Your task to perform on an android device: toggle javascript in the chrome app Image 0: 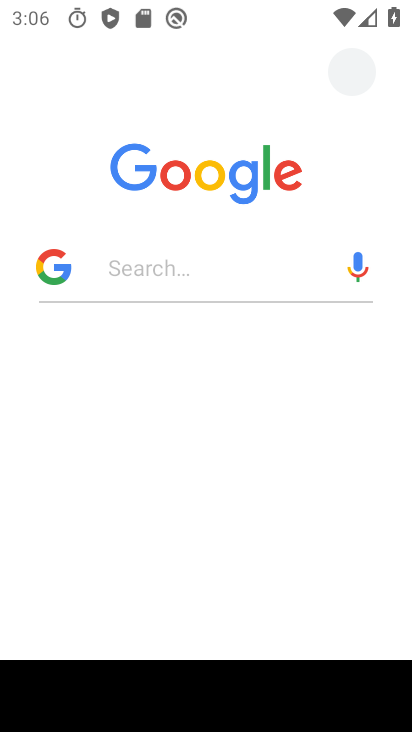
Step 0: press home button
Your task to perform on an android device: toggle javascript in the chrome app Image 1: 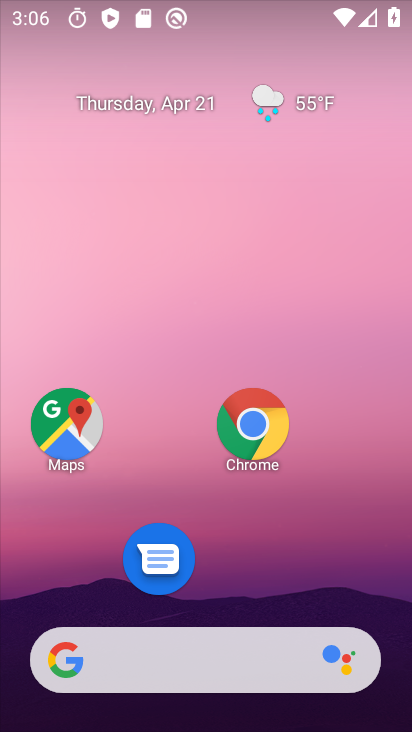
Step 1: click (255, 424)
Your task to perform on an android device: toggle javascript in the chrome app Image 2: 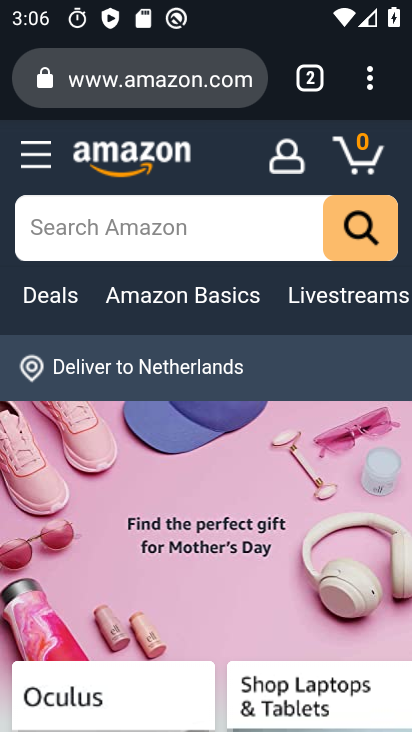
Step 2: click (365, 82)
Your task to perform on an android device: toggle javascript in the chrome app Image 3: 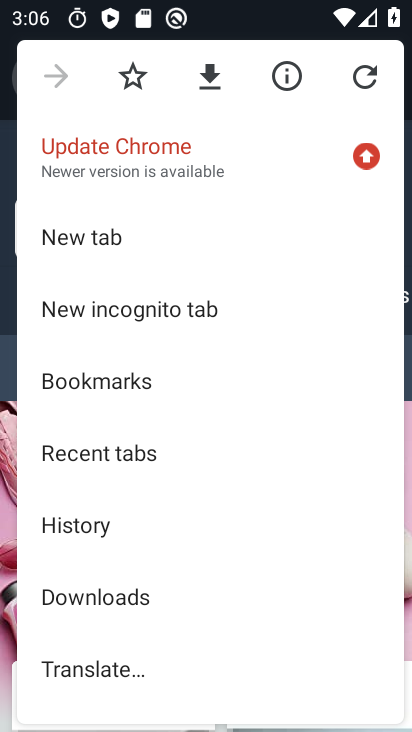
Step 3: drag from (220, 618) to (217, 232)
Your task to perform on an android device: toggle javascript in the chrome app Image 4: 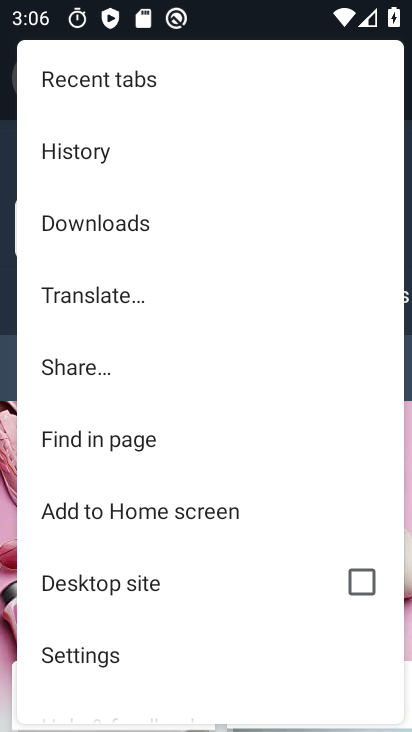
Step 4: click (93, 657)
Your task to perform on an android device: toggle javascript in the chrome app Image 5: 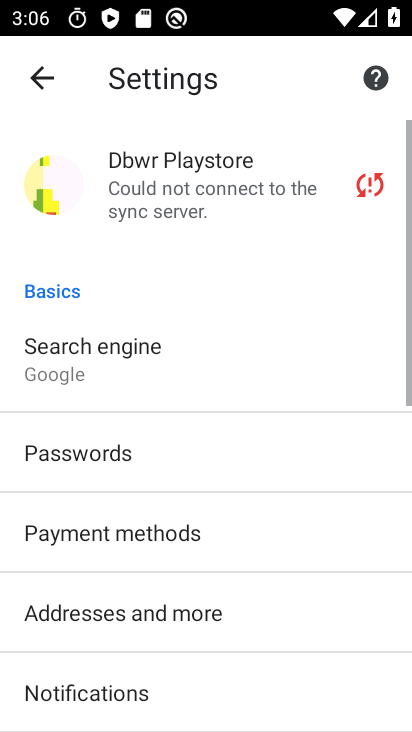
Step 5: drag from (162, 578) to (194, 99)
Your task to perform on an android device: toggle javascript in the chrome app Image 6: 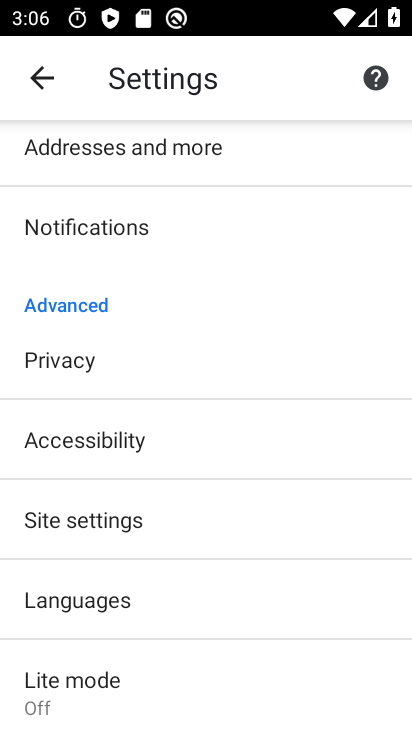
Step 6: click (76, 516)
Your task to perform on an android device: toggle javascript in the chrome app Image 7: 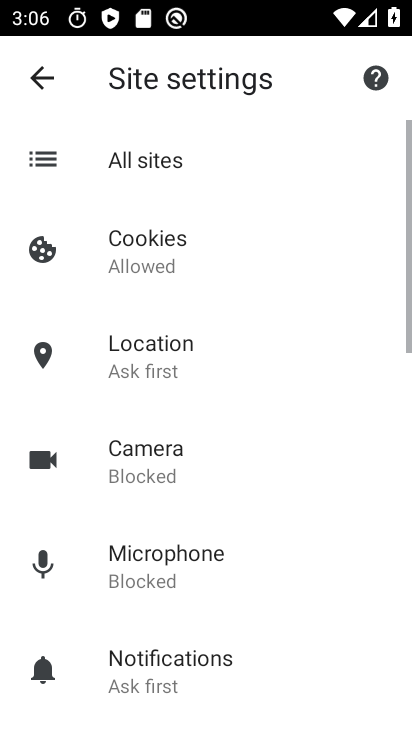
Step 7: drag from (233, 505) to (227, 246)
Your task to perform on an android device: toggle javascript in the chrome app Image 8: 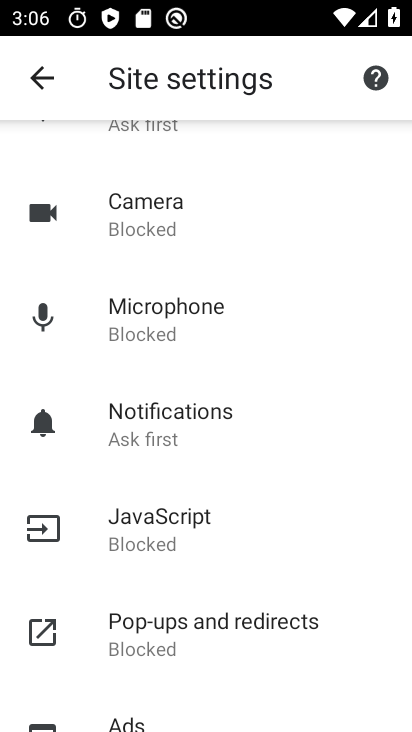
Step 8: click (178, 540)
Your task to perform on an android device: toggle javascript in the chrome app Image 9: 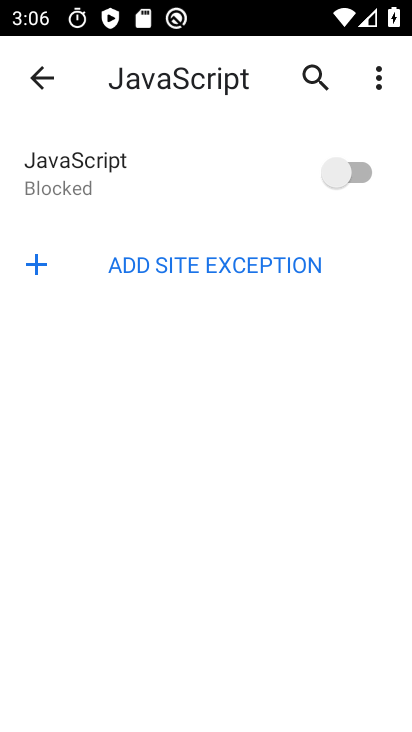
Step 9: click (350, 177)
Your task to perform on an android device: toggle javascript in the chrome app Image 10: 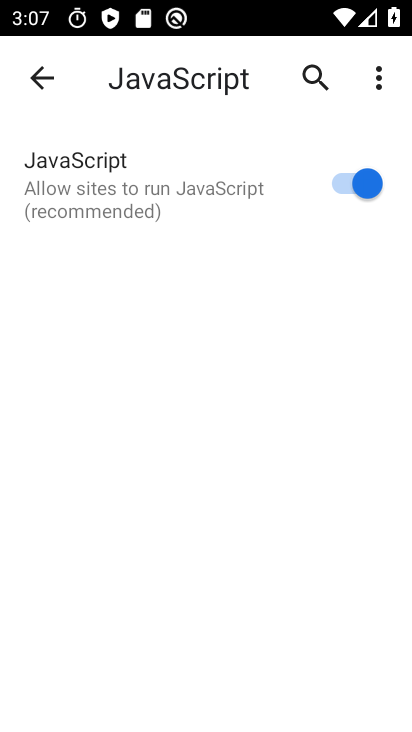
Step 10: task complete